Your task to perform on an android device: turn on translation in the chrome app Image 0: 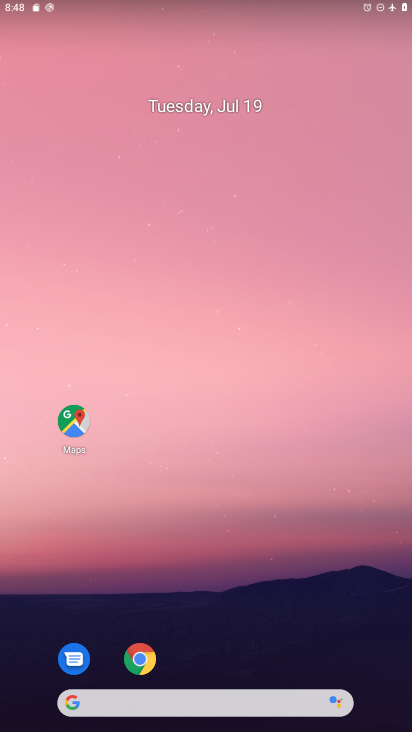
Step 0: drag from (182, 624) to (199, 185)
Your task to perform on an android device: turn on translation in the chrome app Image 1: 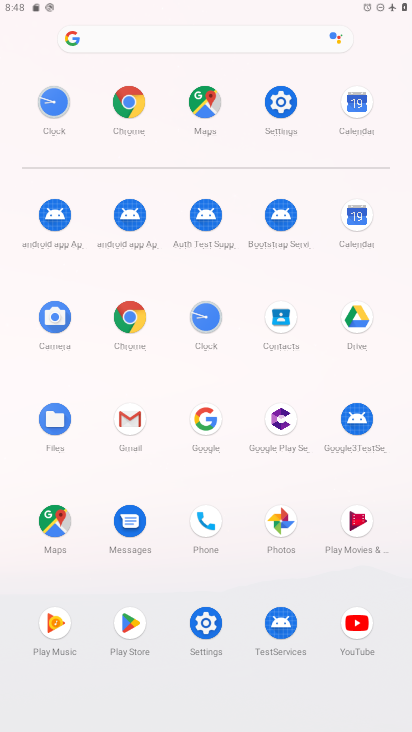
Step 1: click (132, 97)
Your task to perform on an android device: turn on translation in the chrome app Image 2: 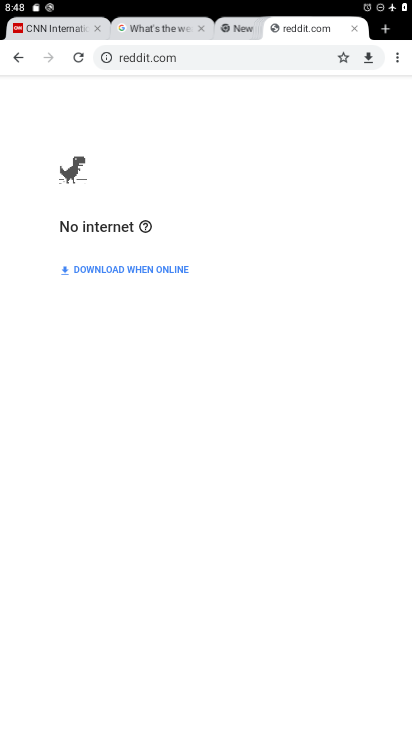
Step 2: click (404, 58)
Your task to perform on an android device: turn on translation in the chrome app Image 3: 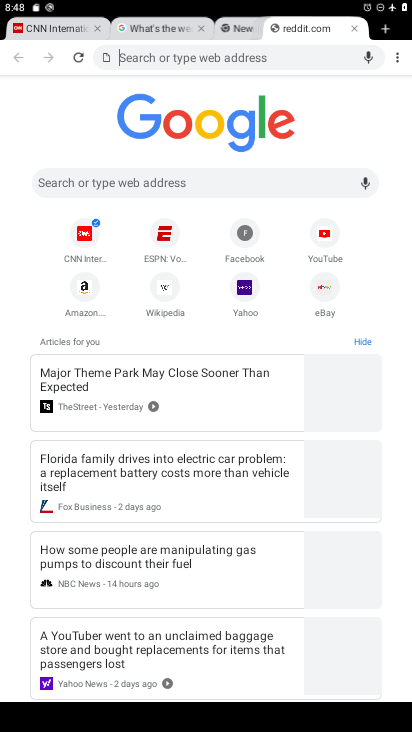
Step 3: click (404, 58)
Your task to perform on an android device: turn on translation in the chrome app Image 4: 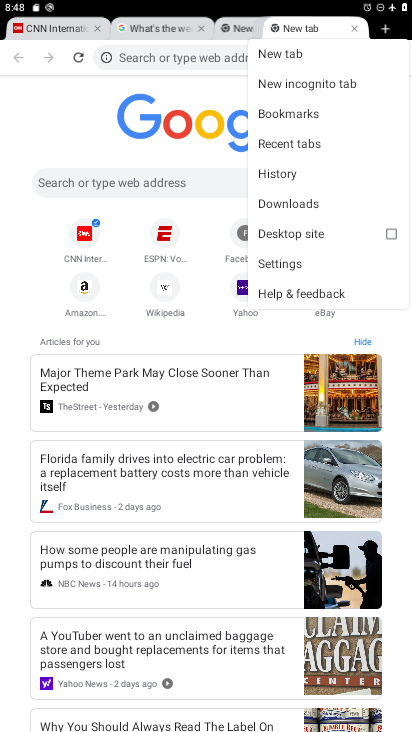
Step 4: click (301, 263)
Your task to perform on an android device: turn on translation in the chrome app Image 5: 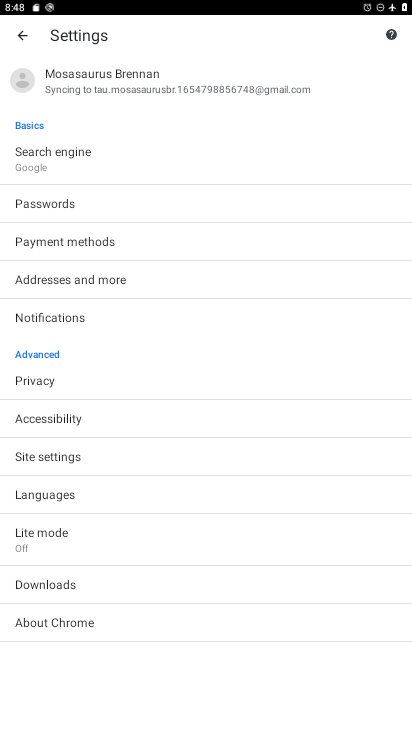
Step 5: click (95, 493)
Your task to perform on an android device: turn on translation in the chrome app Image 6: 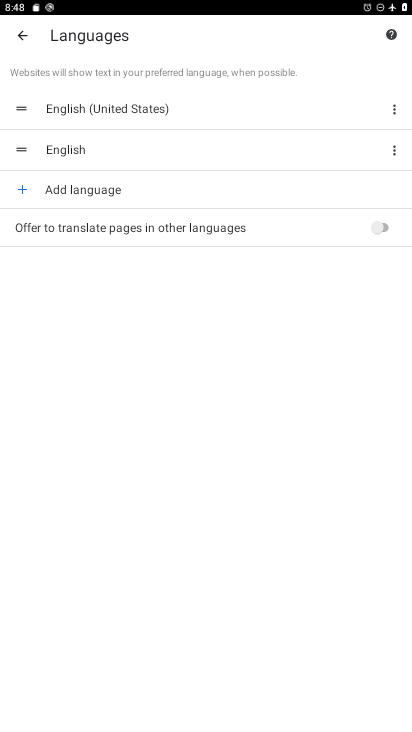
Step 6: click (389, 219)
Your task to perform on an android device: turn on translation in the chrome app Image 7: 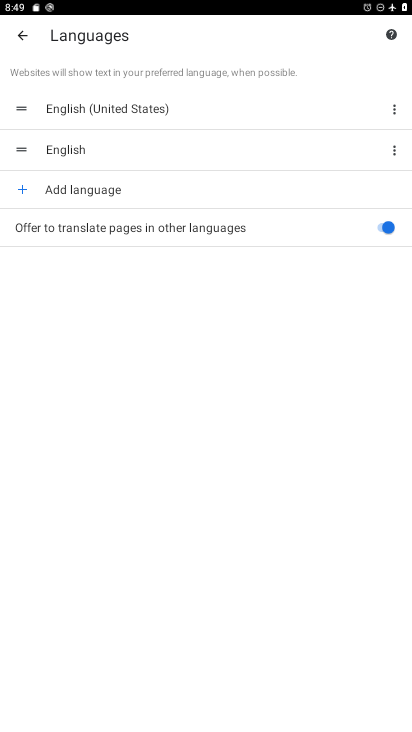
Step 7: task complete